Your task to perform on an android device: Open Maps and search for coffee Image 0: 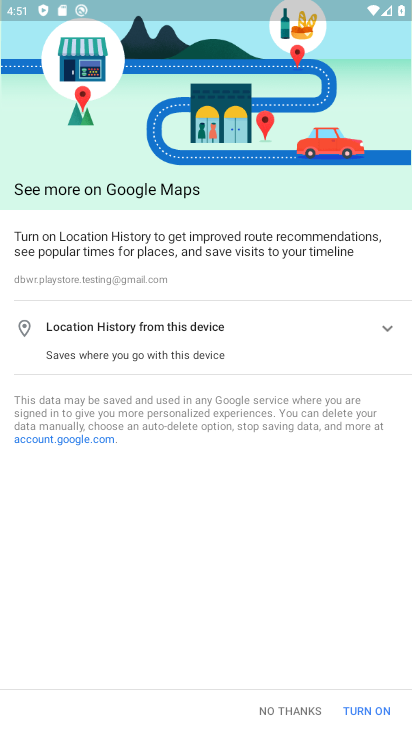
Step 0: press home button
Your task to perform on an android device: Open Maps and search for coffee Image 1: 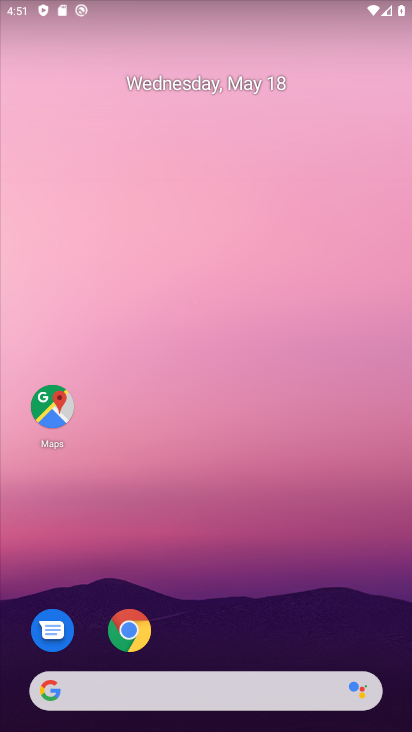
Step 1: click (61, 417)
Your task to perform on an android device: Open Maps and search for coffee Image 2: 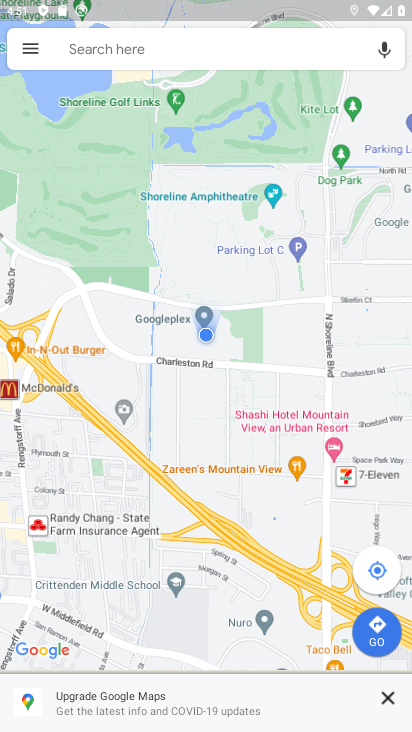
Step 2: type "coffee"
Your task to perform on an android device: Open Maps and search for coffee Image 3: 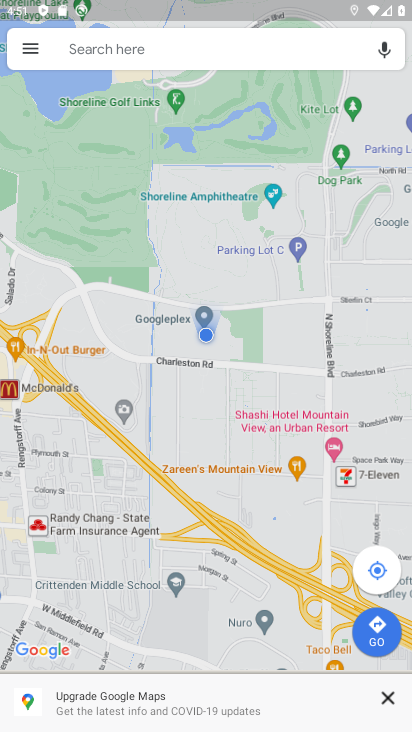
Step 3: click (81, 53)
Your task to perform on an android device: Open Maps and search for coffee Image 4: 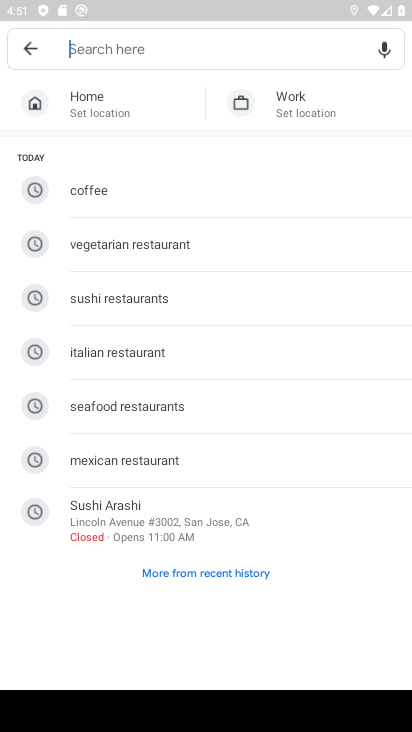
Step 4: click (121, 198)
Your task to perform on an android device: Open Maps and search for coffee Image 5: 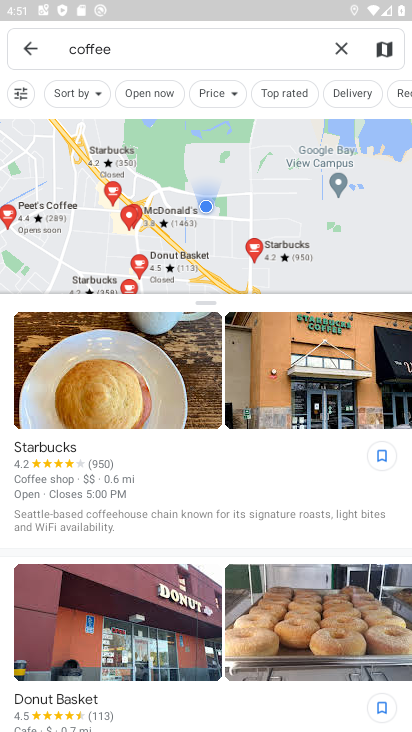
Step 5: task complete